Your task to perform on an android device: Turn off the flashlight Image 0: 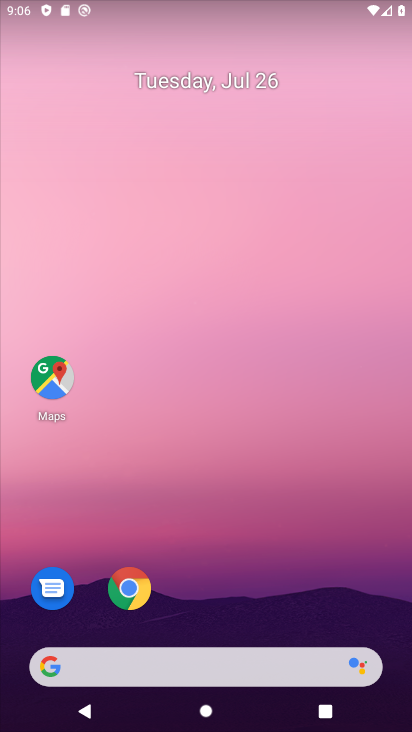
Step 0: drag from (318, 184) to (355, 580)
Your task to perform on an android device: Turn off the flashlight Image 1: 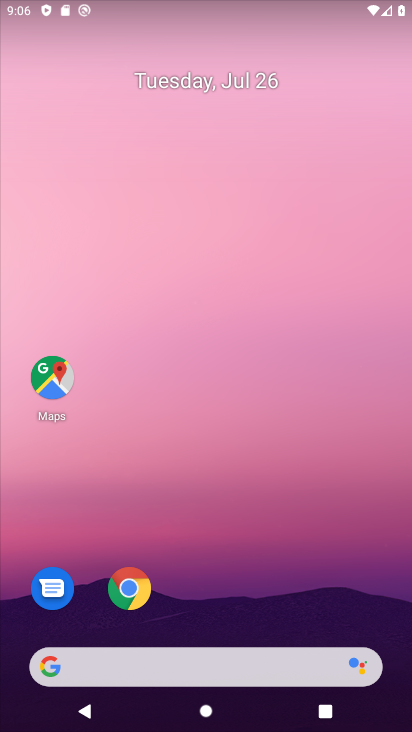
Step 1: drag from (205, 10) to (258, 400)
Your task to perform on an android device: Turn off the flashlight Image 2: 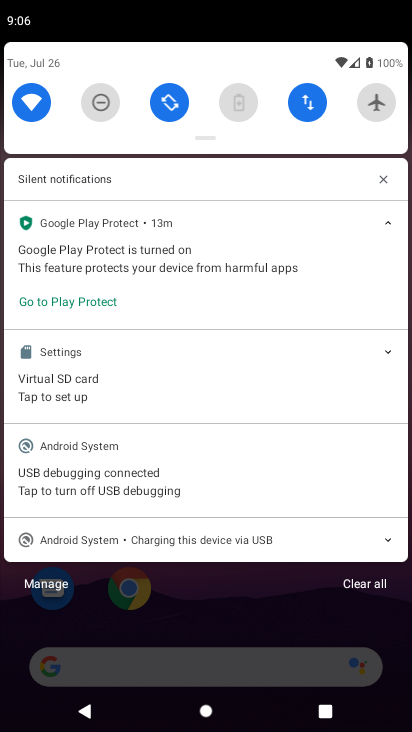
Step 2: drag from (180, 122) to (231, 506)
Your task to perform on an android device: Turn off the flashlight Image 3: 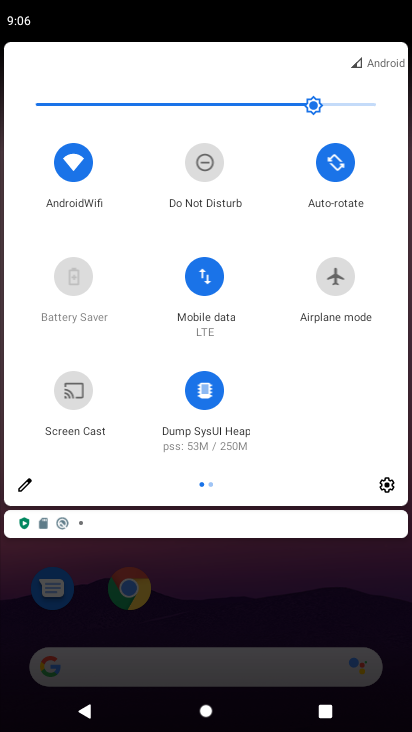
Step 3: drag from (221, 96) to (279, 484)
Your task to perform on an android device: Turn off the flashlight Image 4: 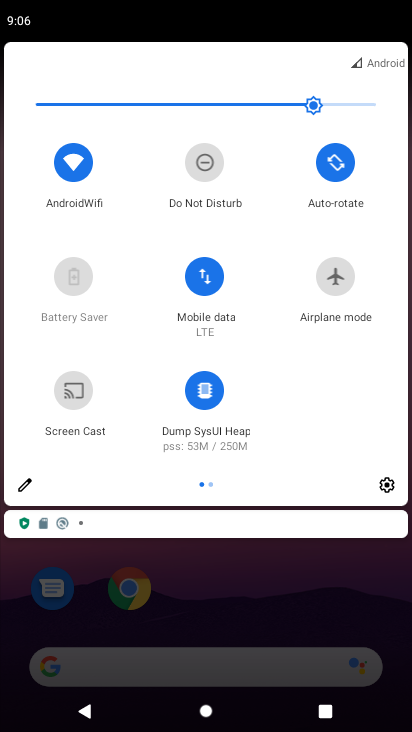
Step 4: click (17, 480)
Your task to perform on an android device: Turn off the flashlight Image 5: 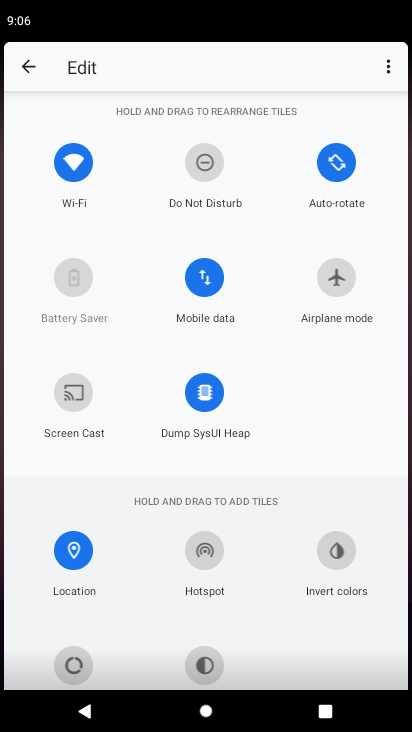
Step 5: task complete